Your task to perform on an android device: Go to Android settings Image 0: 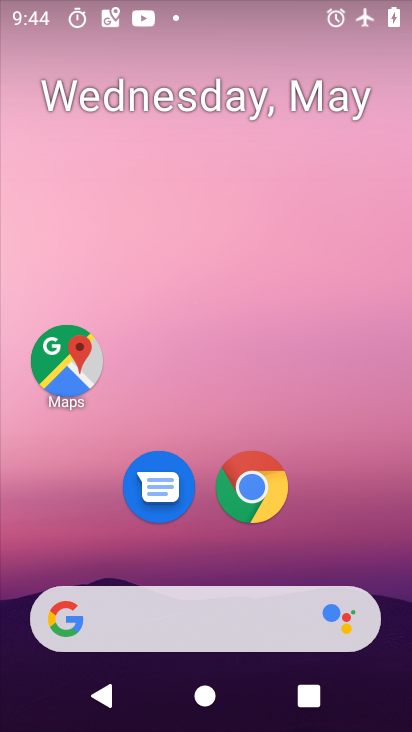
Step 0: drag from (188, 487) to (200, 226)
Your task to perform on an android device: Go to Android settings Image 1: 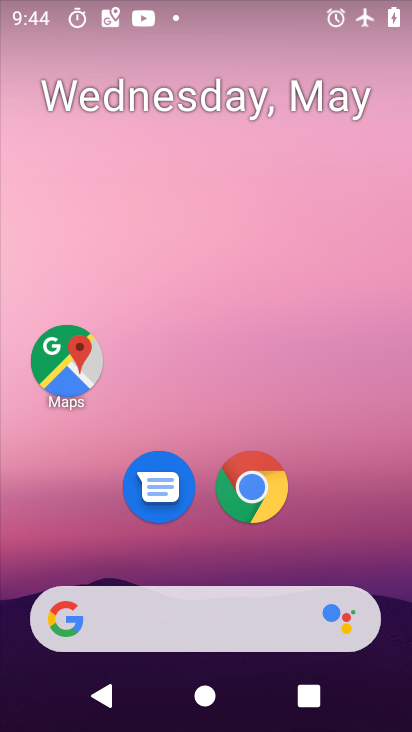
Step 1: drag from (198, 556) to (211, 190)
Your task to perform on an android device: Go to Android settings Image 2: 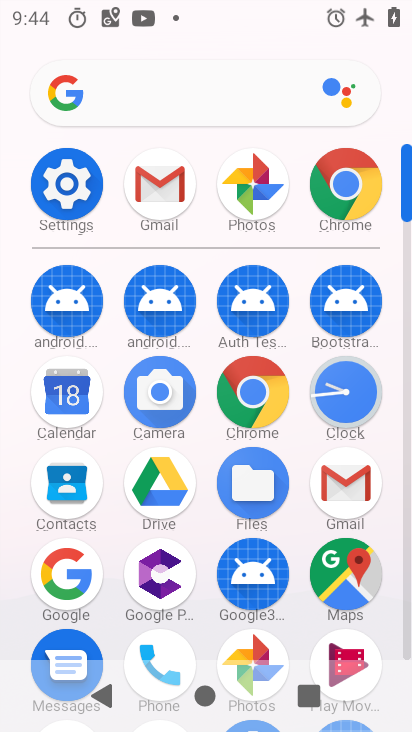
Step 2: click (84, 169)
Your task to perform on an android device: Go to Android settings Image 3: 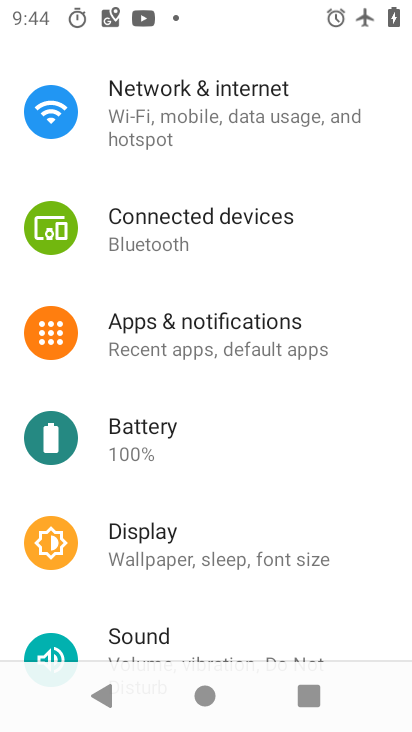
Step 3: task complete